Your task to perform on an android device: Go to Amazon Image 0: 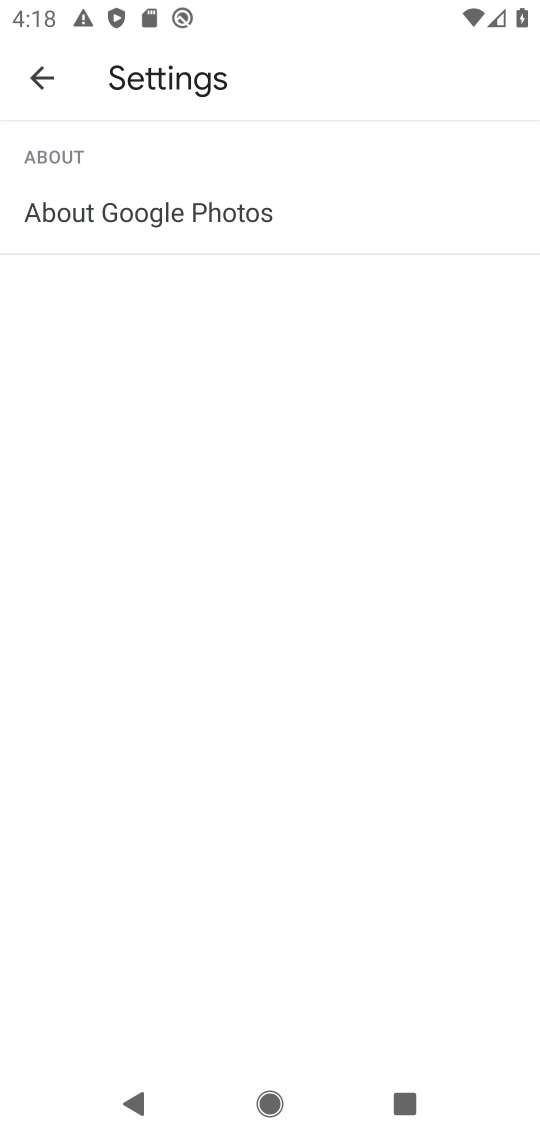
Step 0: press home button
Your task to perform on an android device: Go to Amazon Image 1: 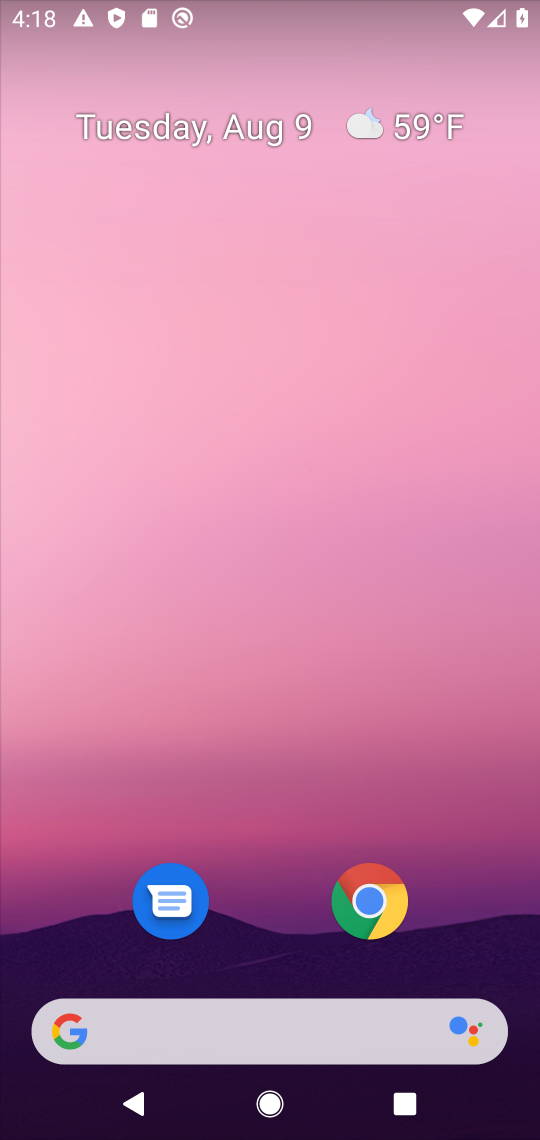
Step 1: click (374, 884)
Your task to perform on an android device: Go to Amazon Image 2: 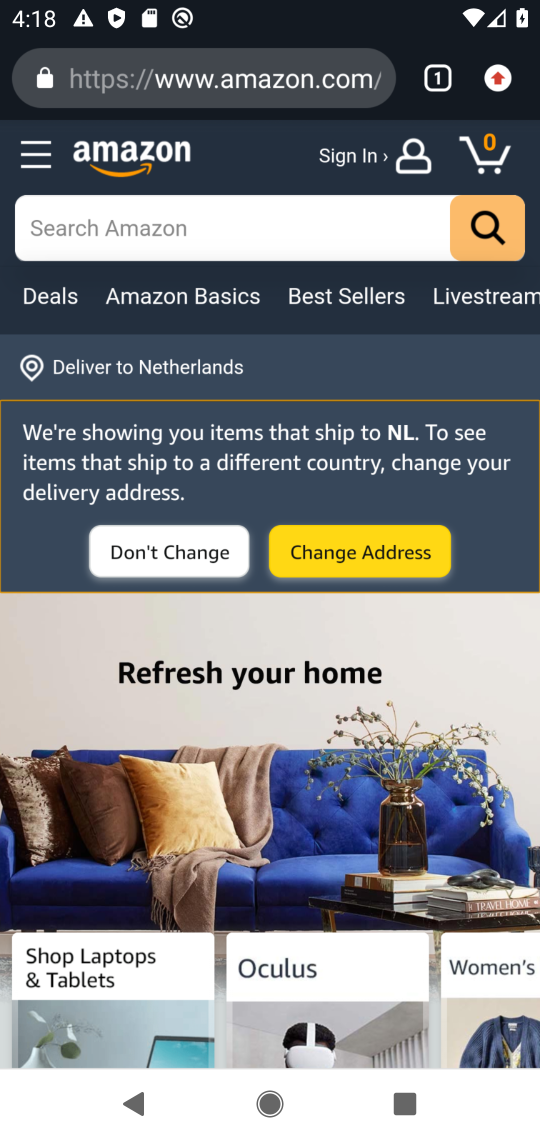
Step 2: task complete